Your task to perform on an android device: Go to Yahoo.com Image 0: 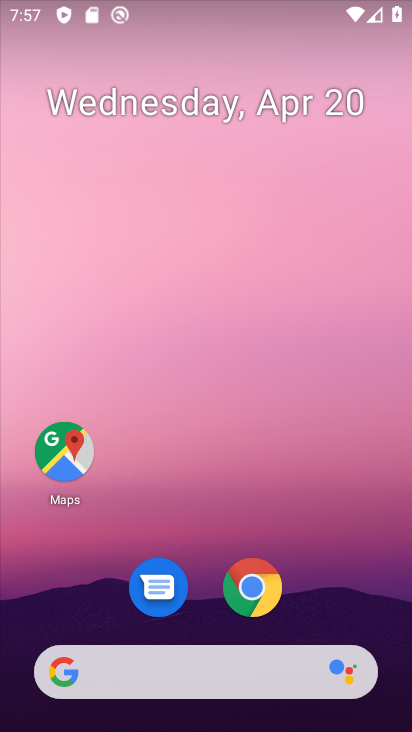
Step 0: drag from (340, 583) to (354, 144)
Your task to perform on an android device: Go to Yahoo.com Image 1: 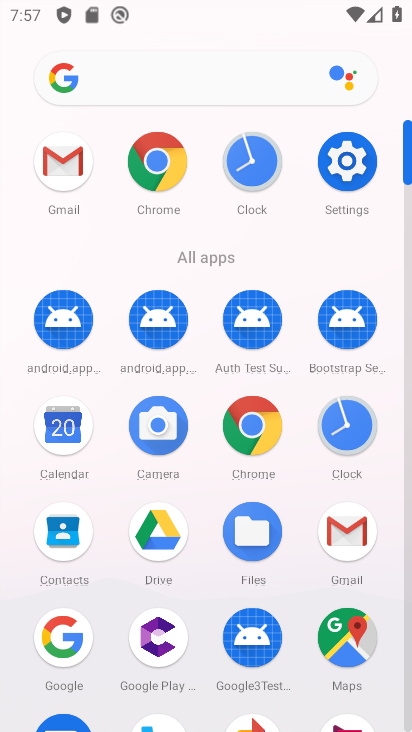
Step 1: click (264, 418)
Your task to perform on an android device: Go to Yahoo.com Image 2: 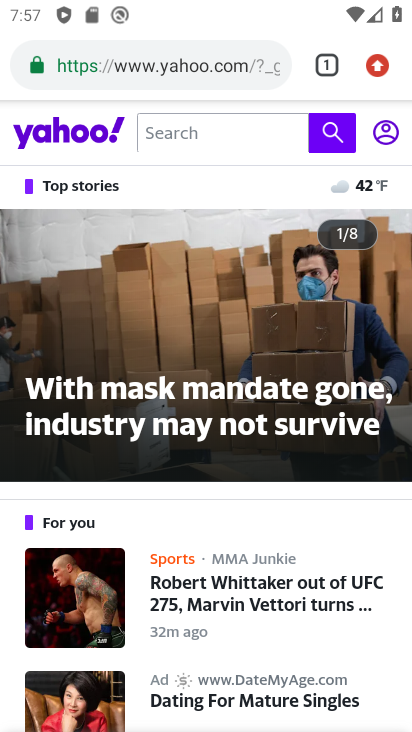
Step 2: task complete